Your task to perform on an android device: Open accessibility settings Image 0: 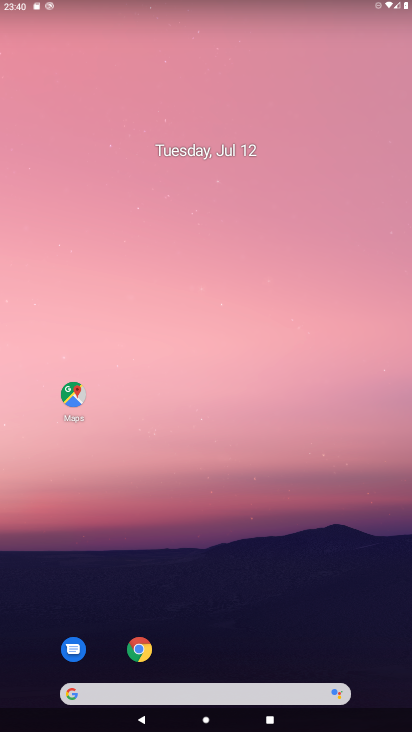
Step 0: drag from (396, 679) to (337, 148)
Your task to perform on an android device: Open accessibility settings Image 1: 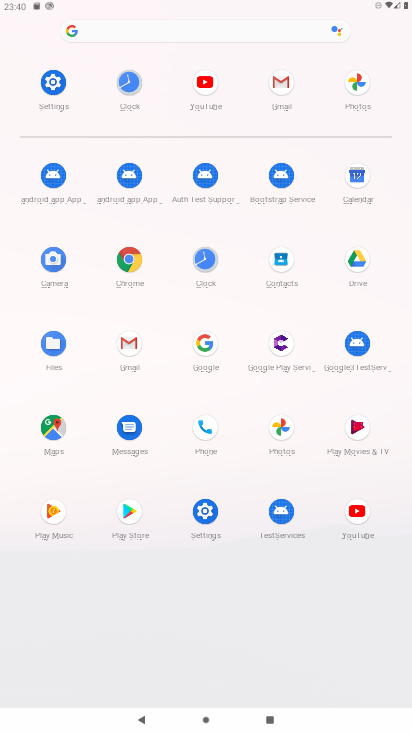
Step 1: click (207, 510)
Your task to perform on an android device: Open accessibility settings Image 2: 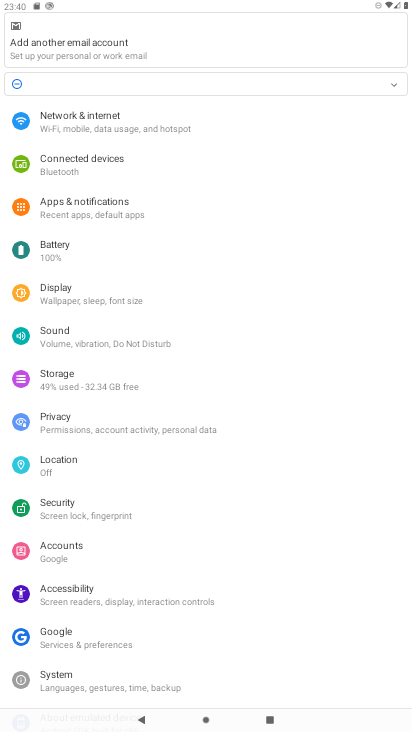
Step 2: click (73, 585)
Your task to perform on an android device: Open accessibility settings Image 3: 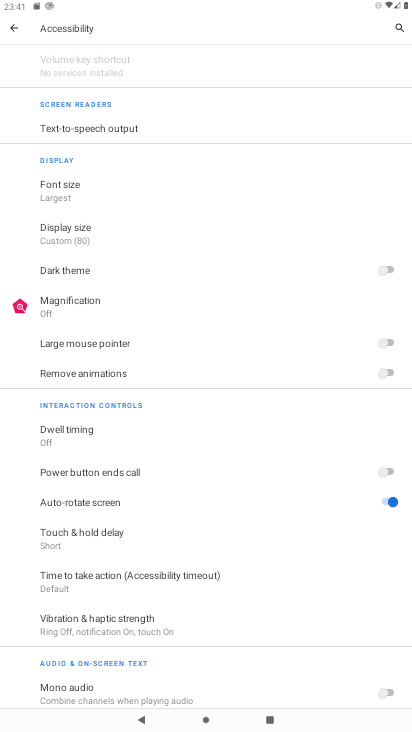
Step 3: task complete